Your task to perform on an android device: open app "DoorDash - Dasher" (install if not already installed) Image 0: 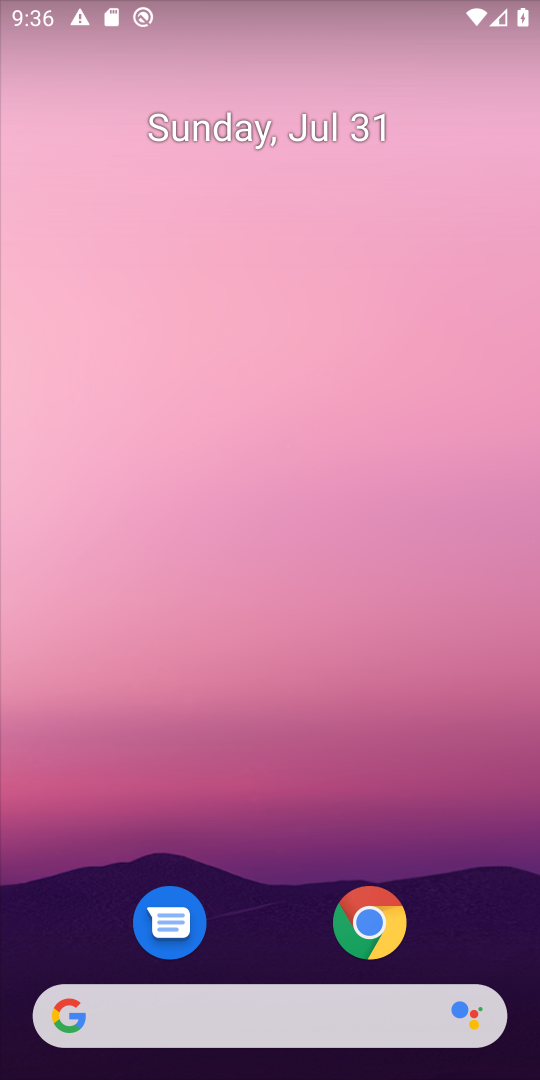
Step 0: drag from (317, 1067) to (251, 103)
Your task to perform on an android device: open app "DoorDash - Dasher" (install if not already installed) Image 1: 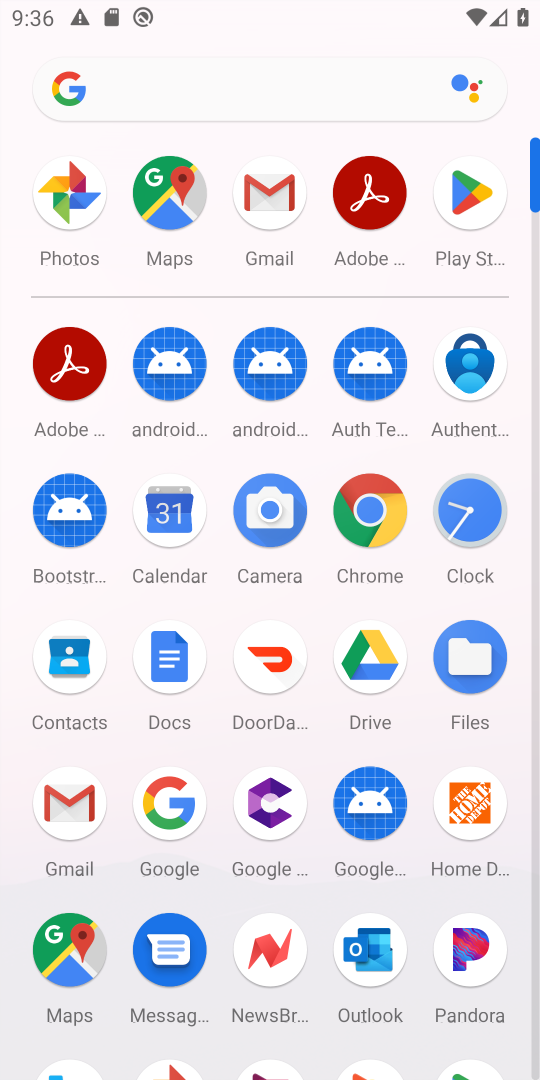
Step 1: click (274, 671)
Your task to perform on an android device: open app "DoorDash - Dasher" (install if not already installed) Image 2: 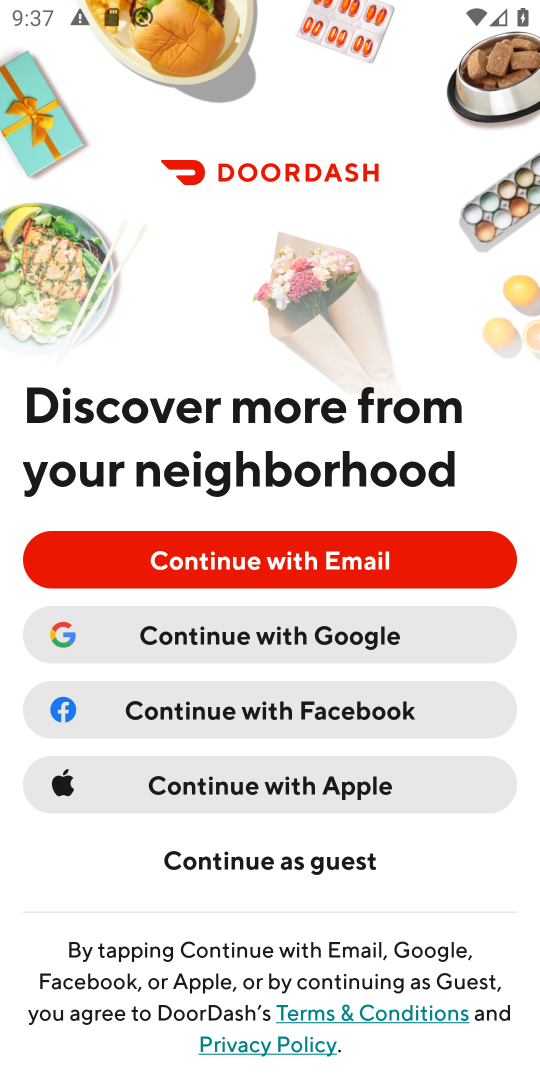
Step 2: task complete